Your task to perform on an android device: turn off sleep mode Image 0: 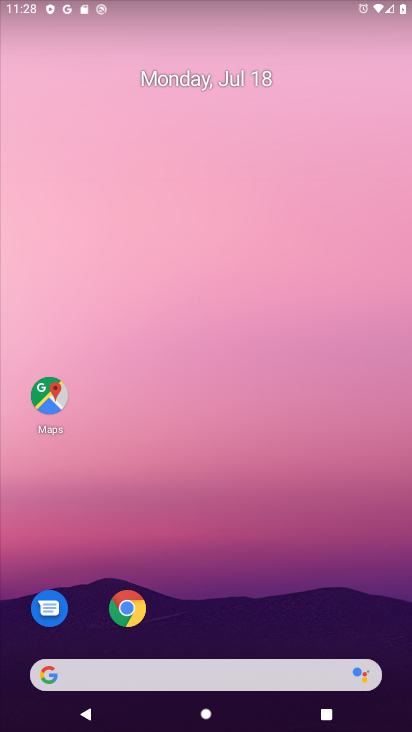
Step 0: drag from (267, 616) to (269, 188)
Your task to perform on an android device: turn off sleep mode Image 1: 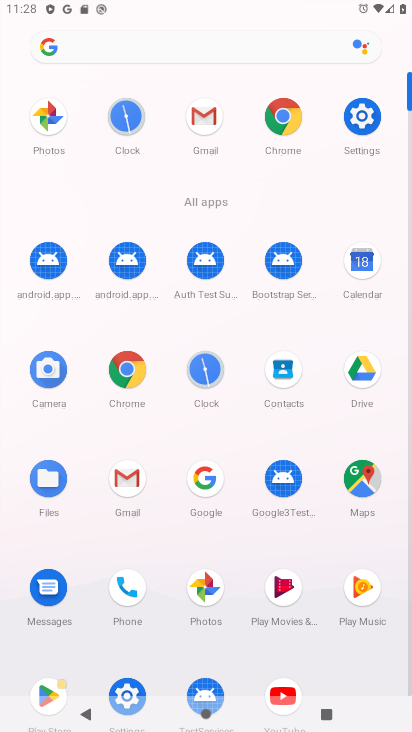
Step 1: click (356, 128)
Your task to perform on an android device: turn off sleep mode Image 2: 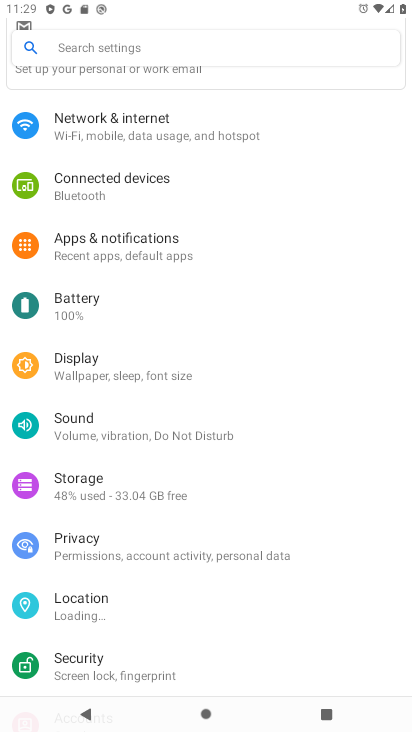
Step 2: click (130, 355)
Your task to perform on an android device: turn off sleep mode Image 3: 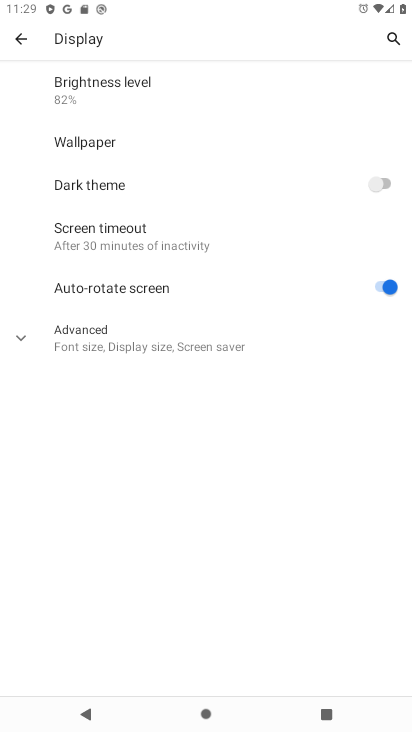
Step 3: click (130, 352)
Your task to perform on an android device: turn off sleep mode Image 4: 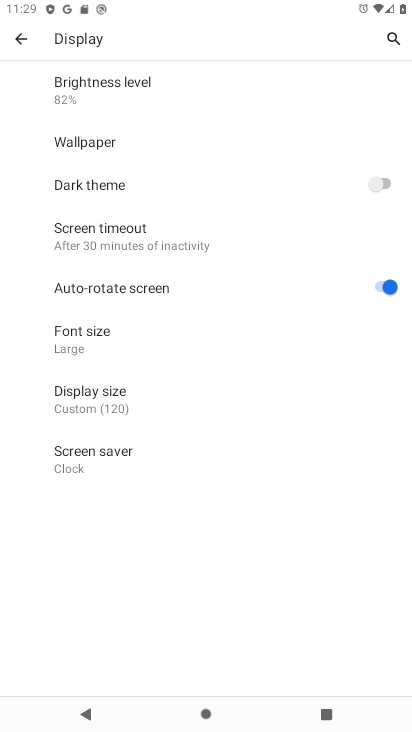
Step 4: task complete